Your task to perform on an android device: open app "Calculator" (install if not already installed) Image 0: 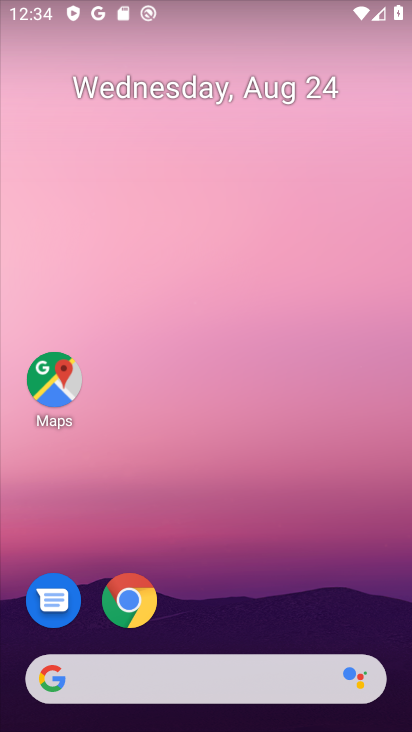
Step 0: drag from (246, 517) to (288, 111)
Your task to perform on an android device: open app "Calculator" (install if not already installed) Image 1: 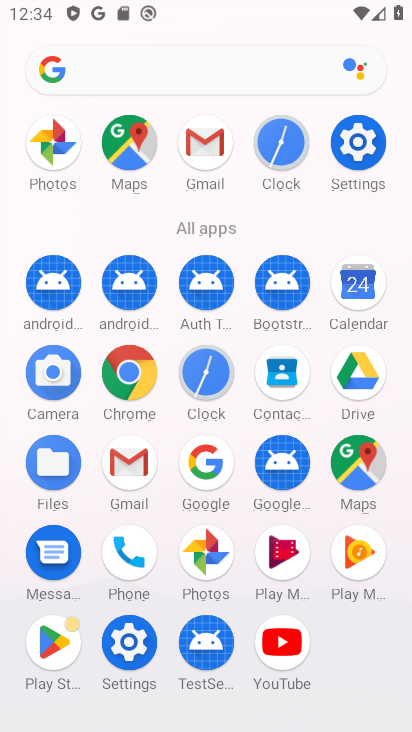
Step 1: click (47, 638)
Your task to perform on an android device: open app "Calculator" (install if not already installed) Image 2: 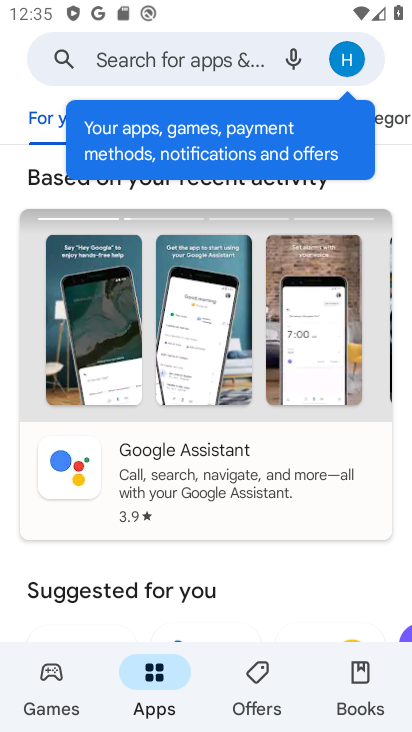
Step 2: click (176, 60)
Your task to perform on an android device: open app "Calculator" (install if not already installed) Image 3: 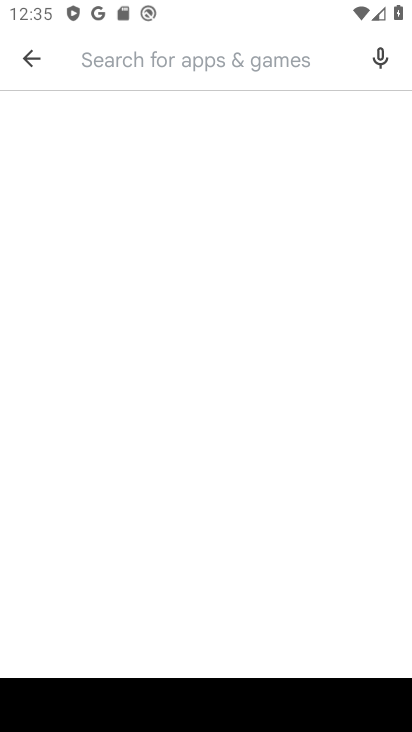
Step 3: type "Calculator"
Your task to perform on an android device: open app "Calculator" (install if not already installed) Image 4: 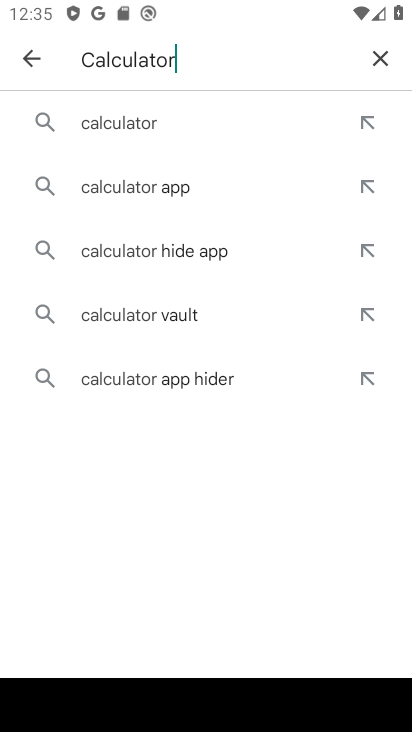
Step 4: click (112, 127)
Your task to perform on an android device: open app "Calculator" (install if not already installed) Image 5: 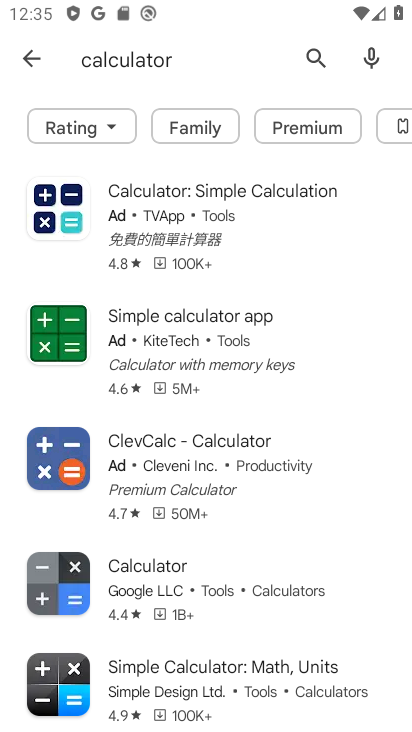
Step 5: click (147, 565)
Your task to perform on an android device: open app "Calculator" (install if not already installed) Image 6: 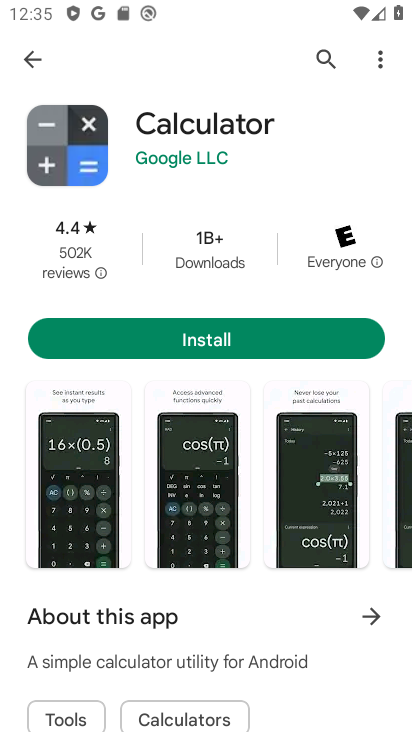
Step 6: click (235, 333)
Your task to perform on an android device: open app "Calculator" (install if not already installed) Image 7: 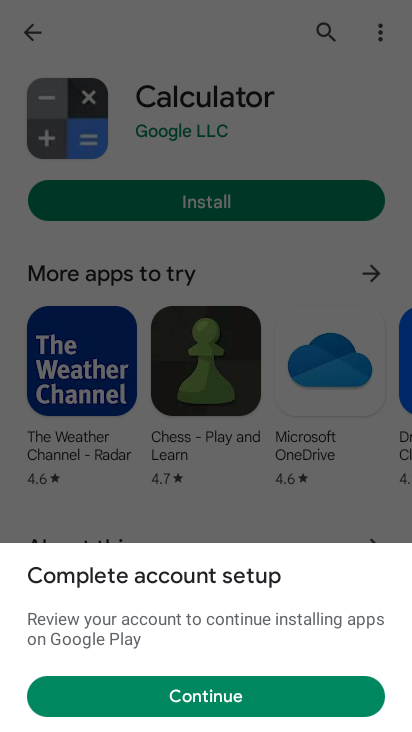
Step 7: click (211, 702)
Your task to perform on an android device: open app "Calculator" (install if not already installed) Image 8: 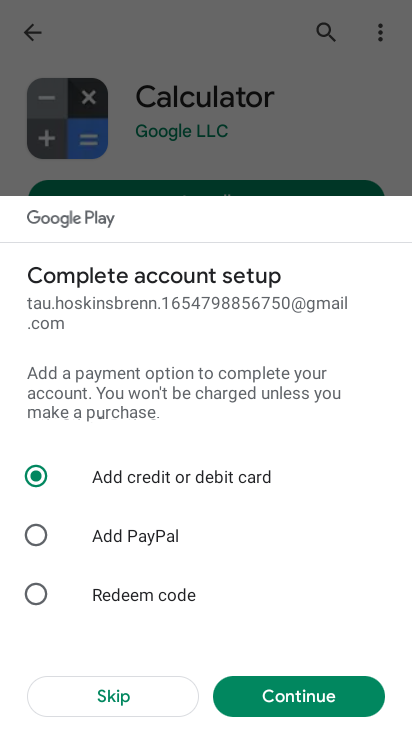
Step 8: click (104, 704)
Your task to perform on an android device: open app "Calculator" (install if not already installed) Image 9: 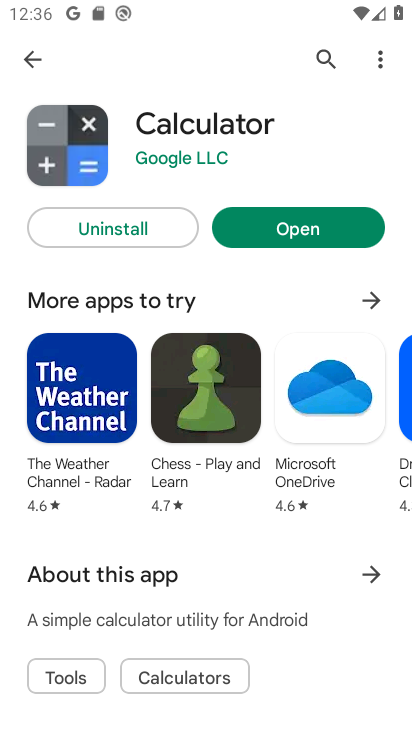
Step 9: click (305, 239)
Your task to perform on an android device: open app "Calculator" (install if not already installed) Image 10: 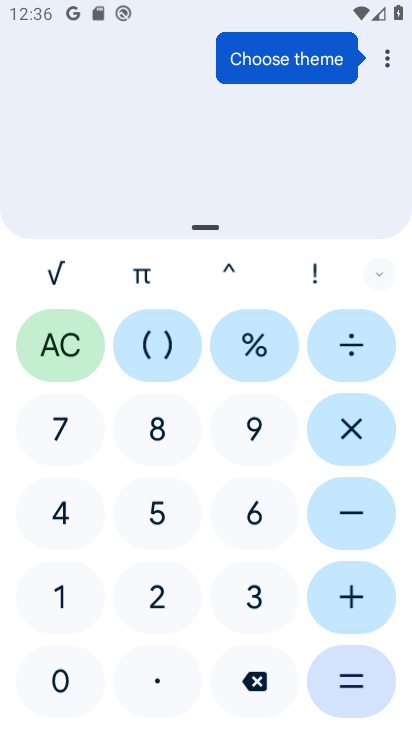
Step 10: task complete